Your task to perform on an android device: Go to Maps Image 0: 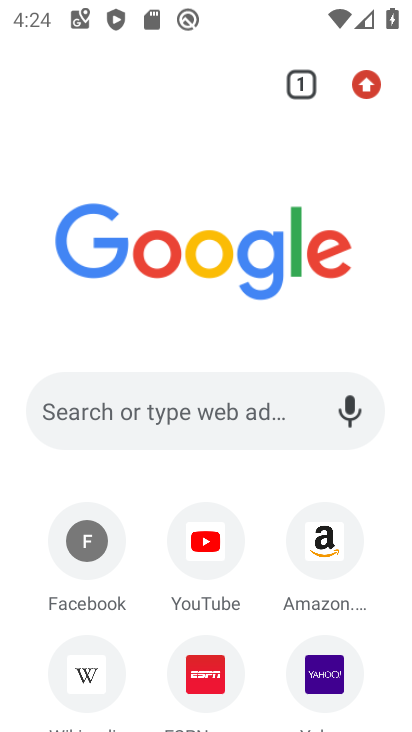
Step 0: press home button
Your task to perform on an android device: Go to Maps Image 1: 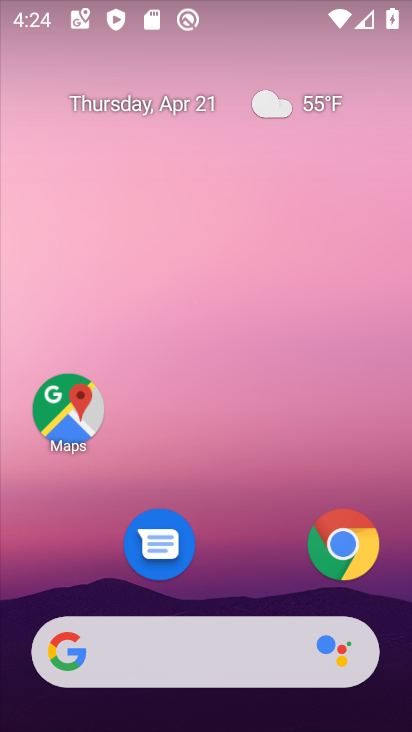
Step 1: drag from (180, 692) to (214, 137)
Your task to perform on an android device: Go to Maps Image 2: 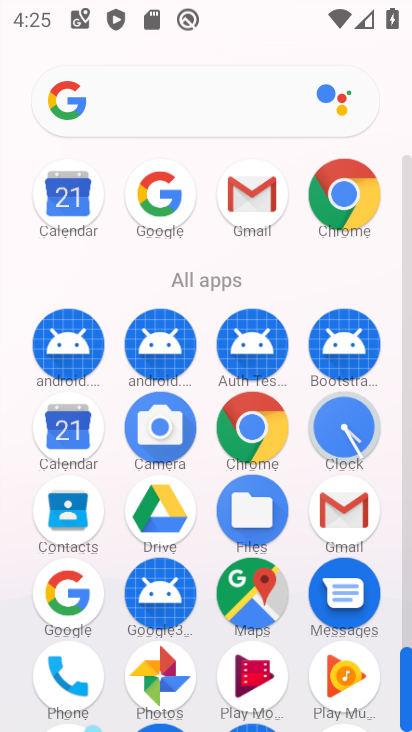
Step 2: click (252, 603)
Your task to perform on an android device: Go to Maps Image 3: 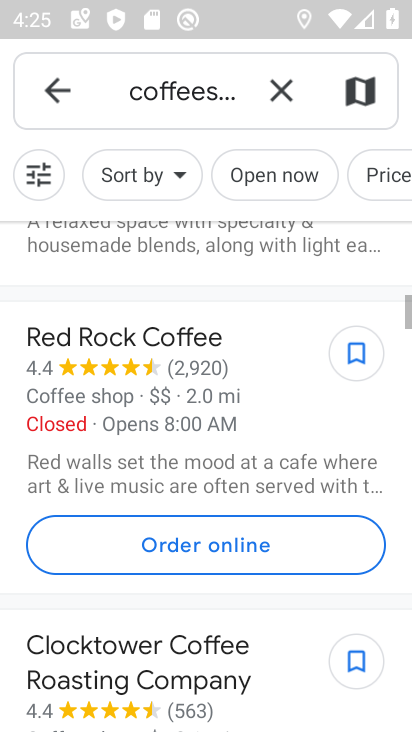
Step 3: drag from (257, 481) to (268, 307)
Your task to perform on an android device: Go to Maps Image 4: 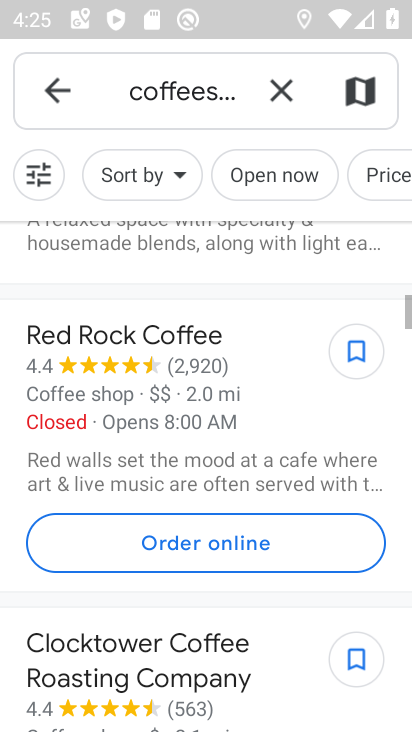
Step 4: click (280, 94)
Your task to perform on an android device: Go to Maps Image 5: 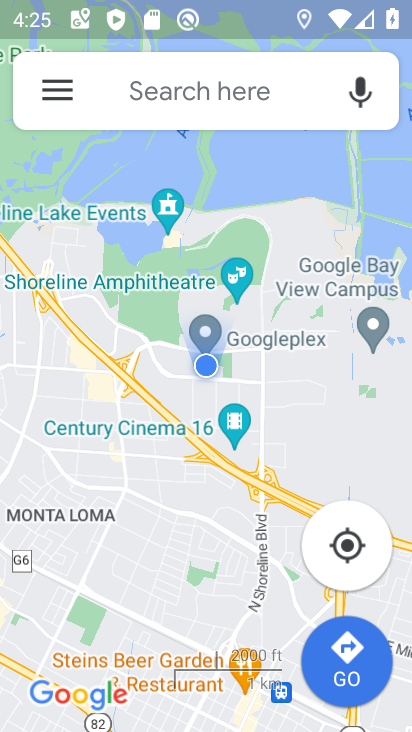
Step 5: task complete